Your task to perform on an android device: Go to ESPN.com Image 0: 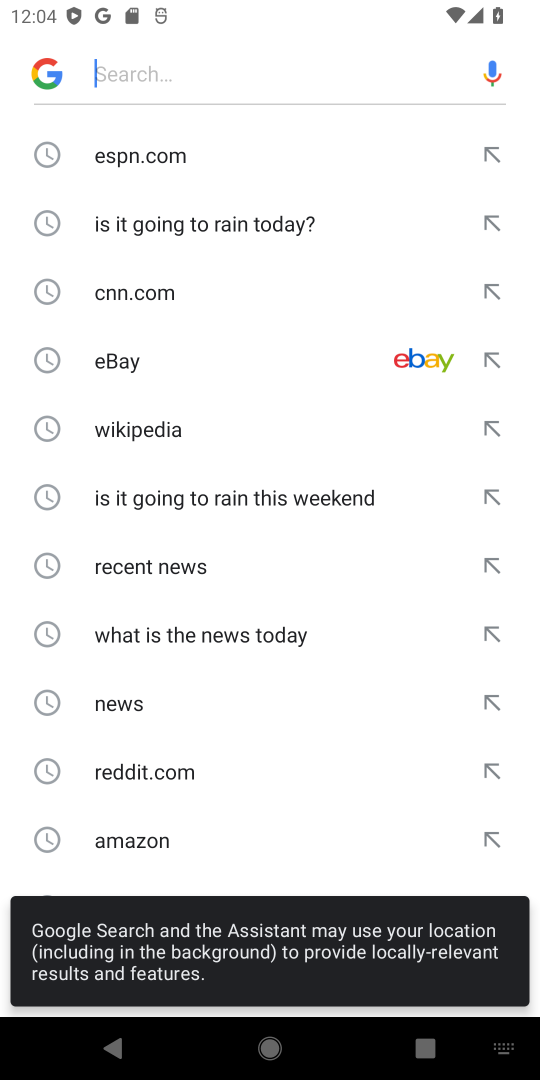
Step 0: press home button
Your task to perform on an android device: Go to ESPN.com Image 1: 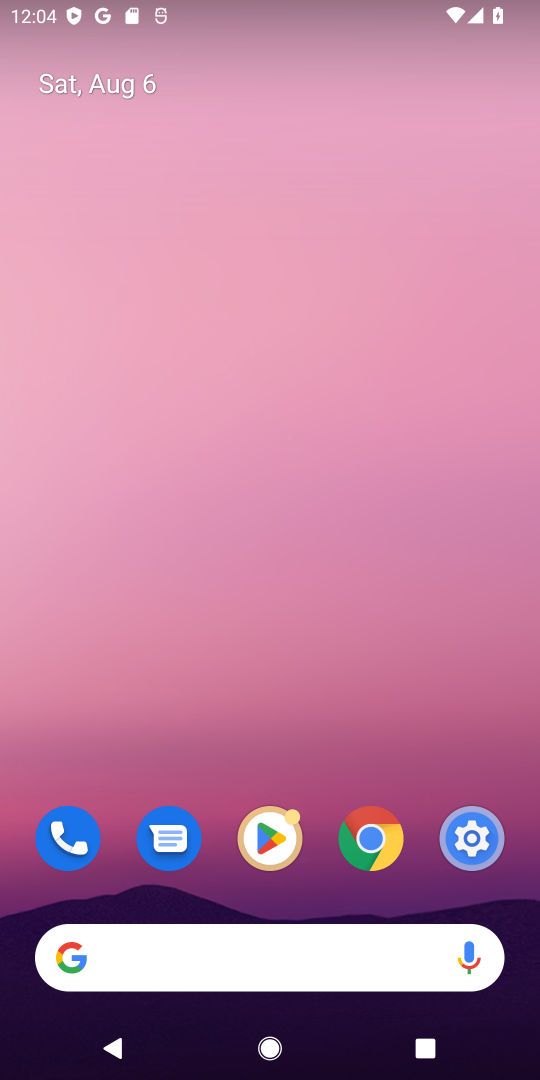
Step 1: click (397, 825)
Your task to perform on an android device: Go to ESPN.com Image 2: 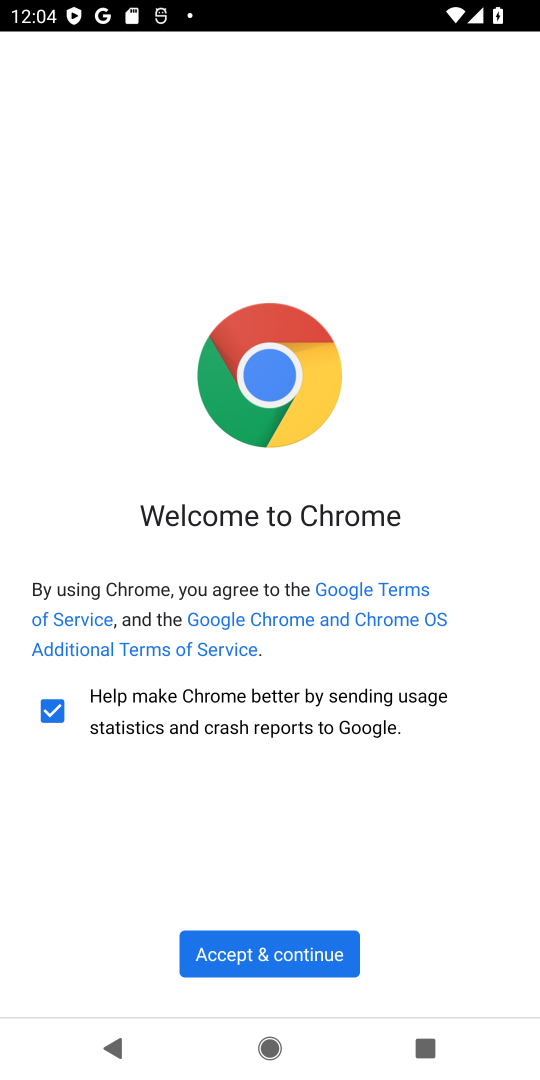
Step 2: click (324, 950)
Your task to perform on an android device: Go to ESPN.com Image 3: 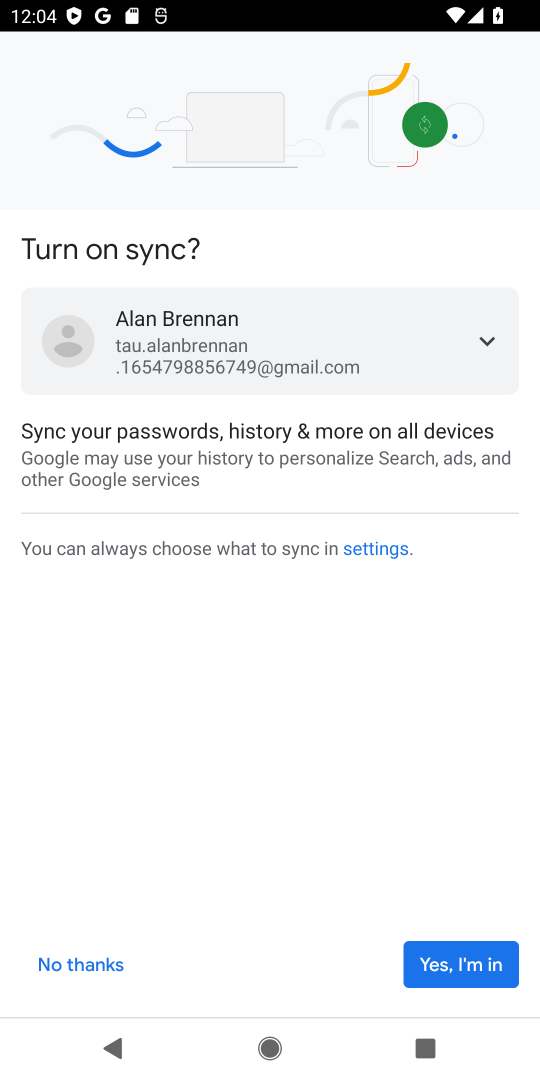
Step 3: click (445, 976)
Your task to perform on an android device: Go to ESPN.com Image 4: 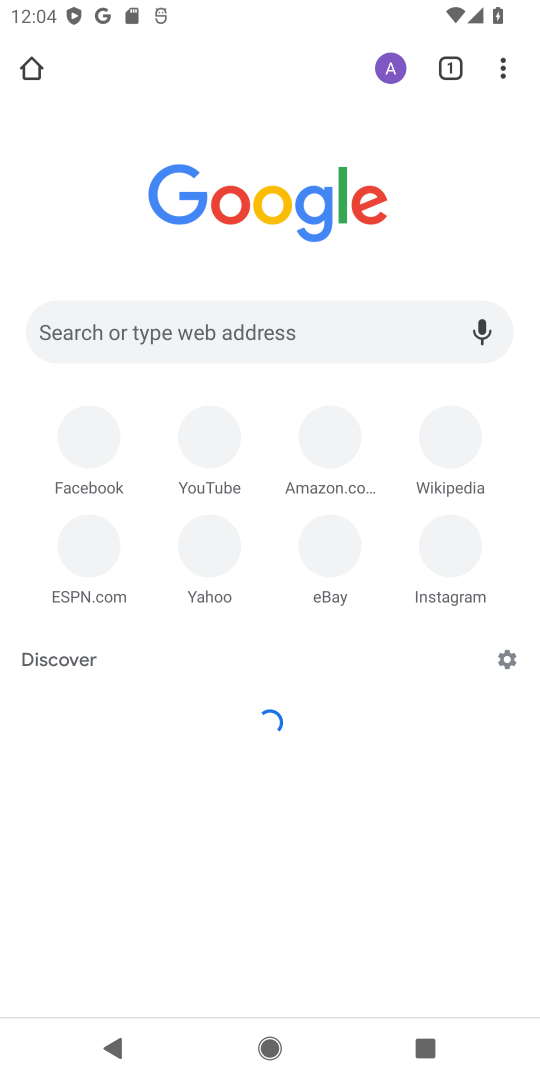
Step 4: click (254, 313)
Your task to perform on an android device: Go to ESPN.com Image 5: 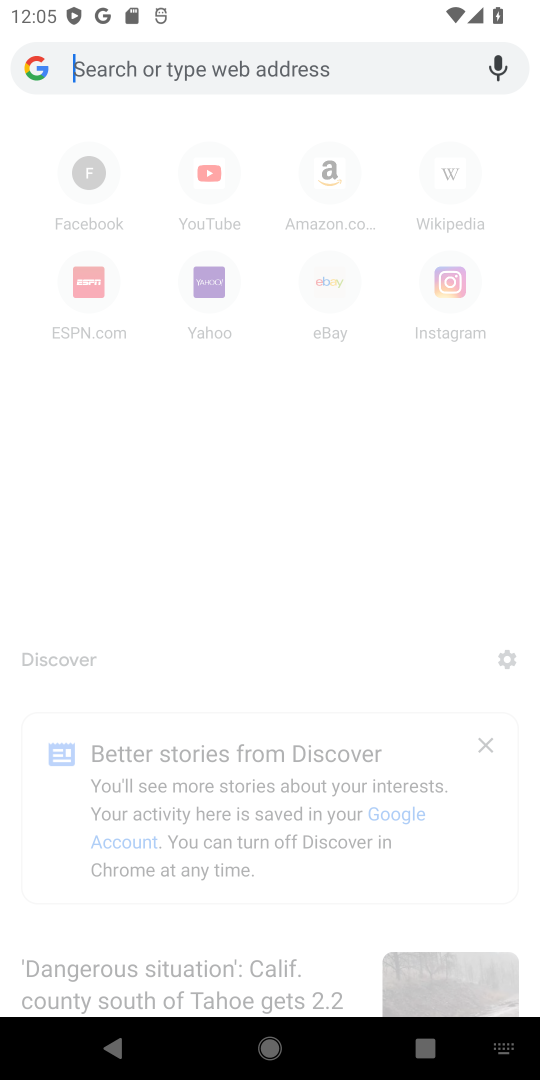
Step 5: type "espn.com"
Your task to perform on an android device: Go to ESPN.com Image 6: 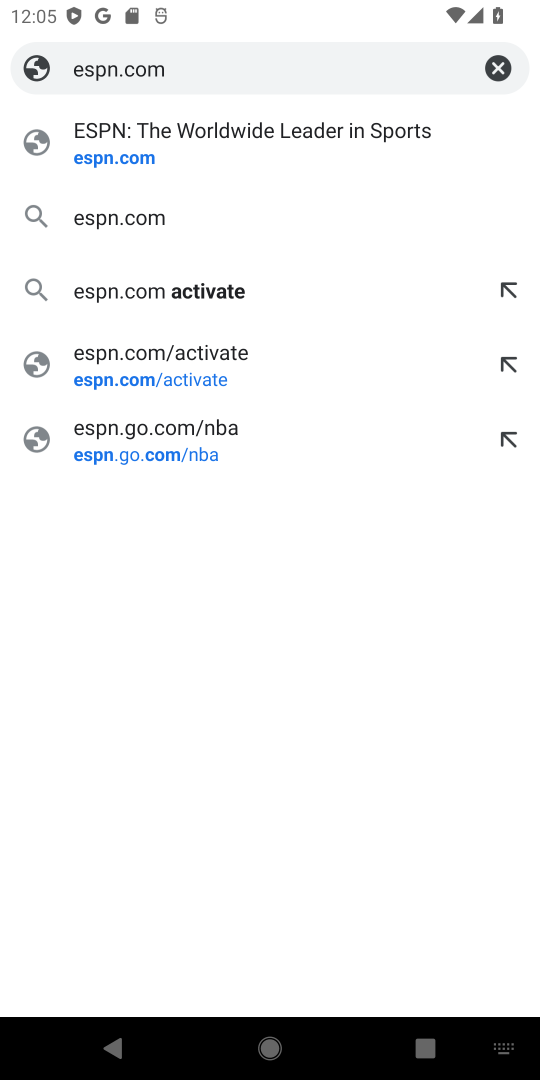
Step 6: click (319, 143)
Your task to perform on an android device: Go to ESPN.com Image 7: 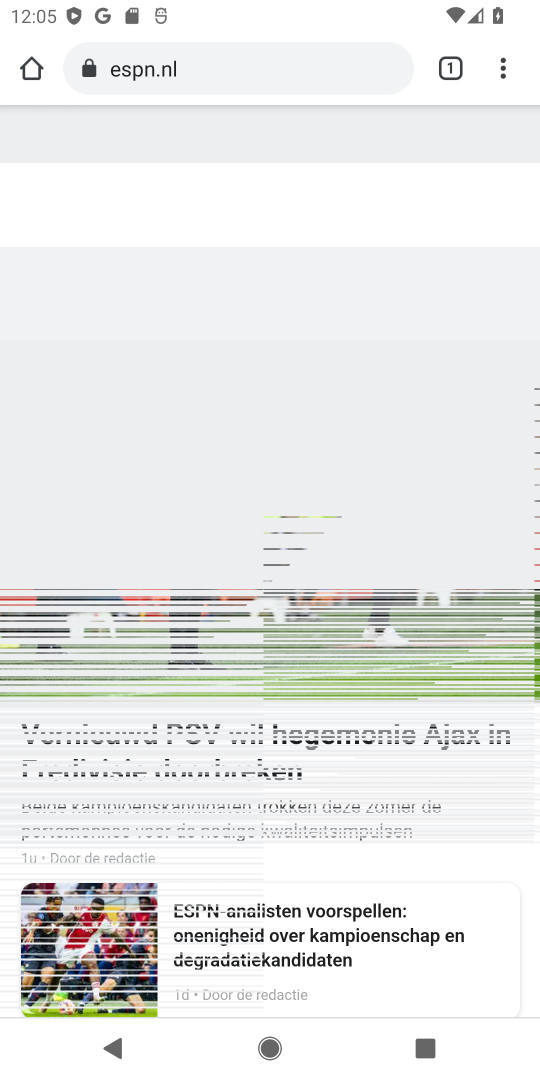
Step 7: task complete